Your task to perform on an android device: turn notification dots on Image 0: 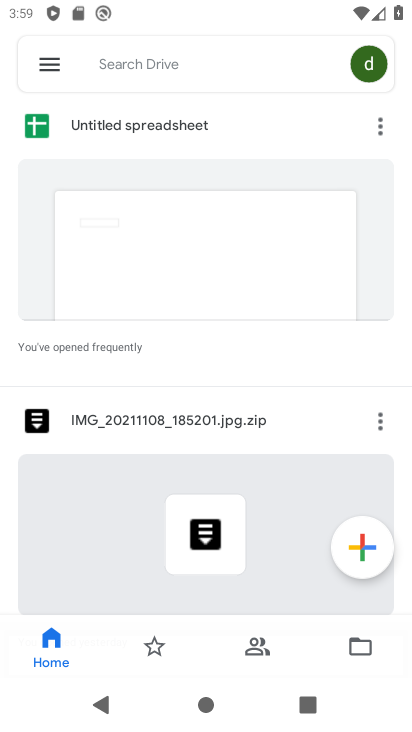
Step 0: press home button
Your task to perform on an android device: turn notification dots on Image 1: 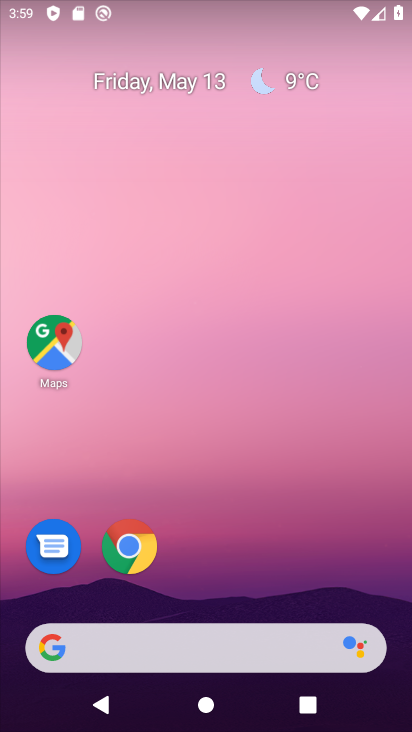
Step 1: drag from (202, 596) to (216, 12)
Your task to perform on an android device: turn notification dots on Image 2: 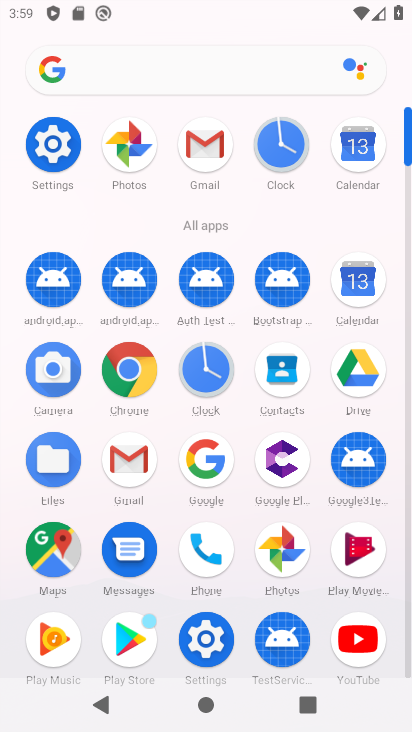
Step 2: click (27, 154)
Your task to perform on an android device: turn notification dots on Image 3: 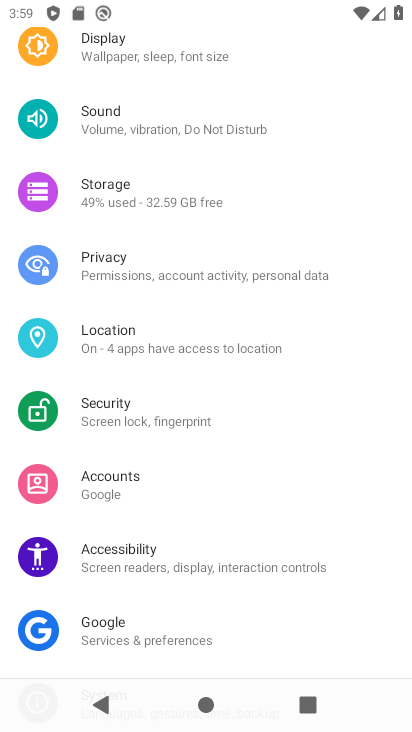
Step 3: drag from (125, 221) to (117, 714)
Your task to perform on an android device: turn notification dots on Image 4: 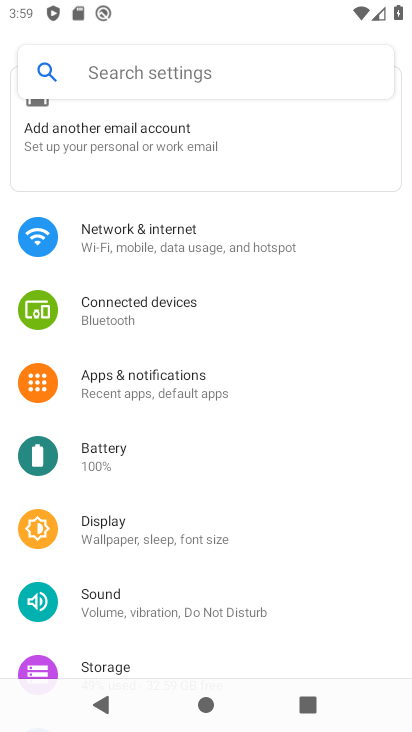
Step 4: click (166, 393)
Your task to perform on an android device: turn notification dots on Image 5: 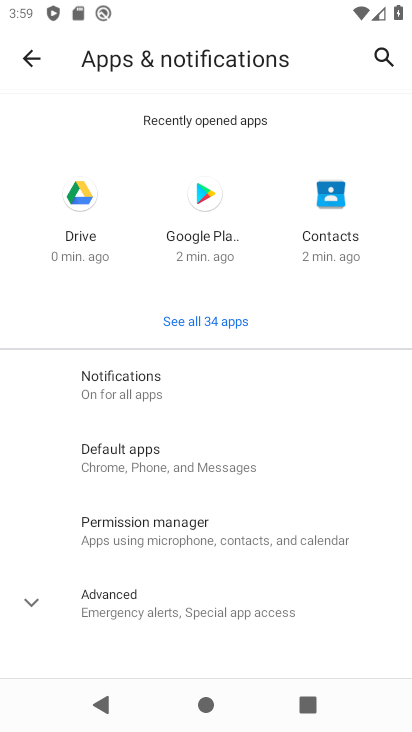
Step 5: click (142, 392)
Your task to perform on an android device: turn notification dots on Image 6: 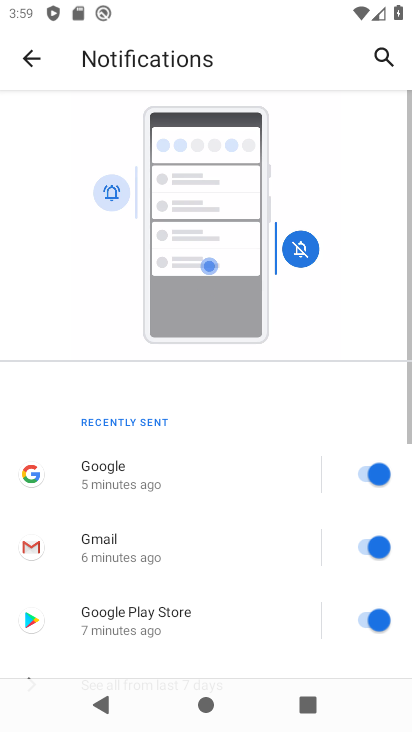
Step 6: drag from (194, 567) to (180, 162)
Your task to perform on an android device: turn notification dots on Image 7: 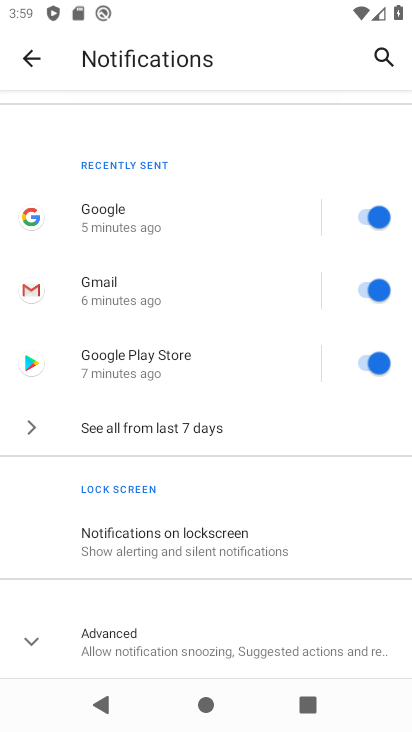
Step 7: drag from (233, 536) to (186, 137)
Your task to perform on an android device: turn notification dots on Image 8: 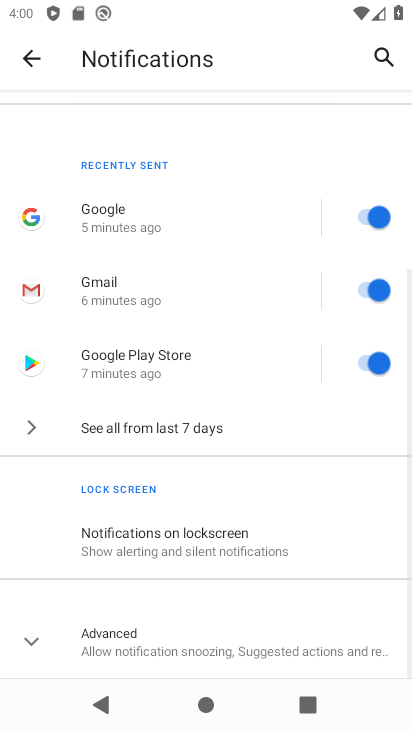
Step 8: click (174, 649)
Your task to perform on an android device: turn notification dots on Image 9: 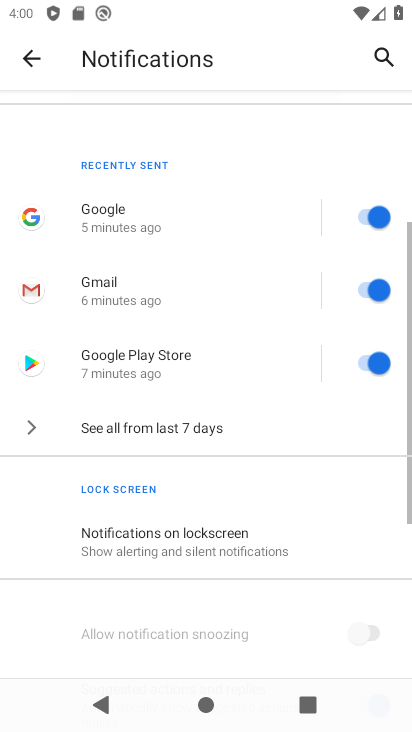
Step 9: task complete